Your task to perform on an android device: Show me productivity apps on the Play Store Image 0: 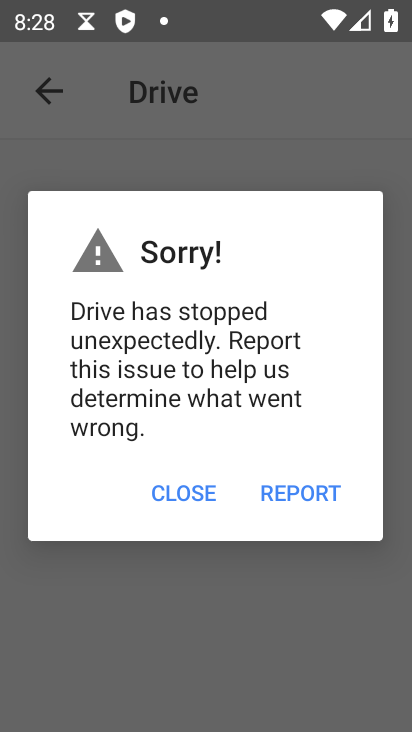
Step 0: press home button
Your task to perform on an android device: Show me productivity apps on the Play Store Image 1: 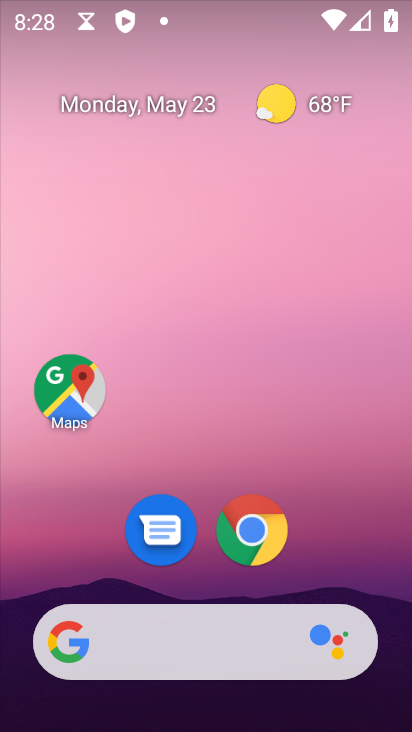
Step 1: drag from (89, 572) to (213, 144)
Your task to perform on an android device: Show me productivity apps on the Play Store Image 2: 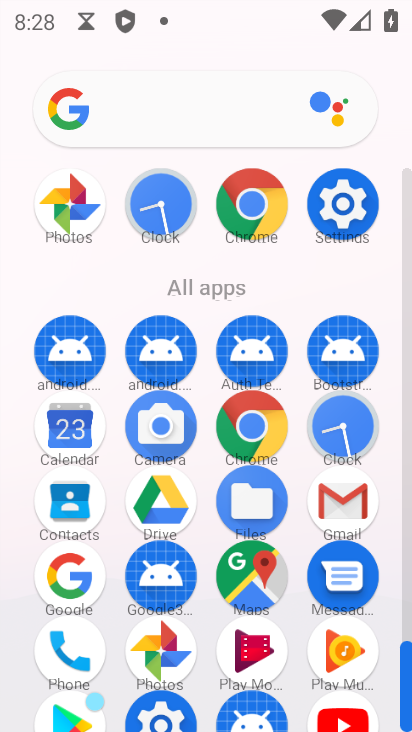
Step 2: drag from (86, 658) to (137, 359)
Your task to perform on an android device: Show me productivity apps on the Play Store Image 3: 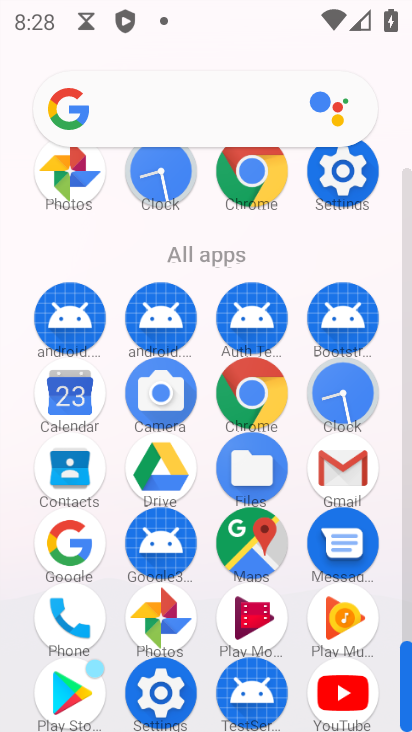
Step 3: click (75, 701)
Your task to perform on an android device: Show me productivity apps on the Play Store Image 4: 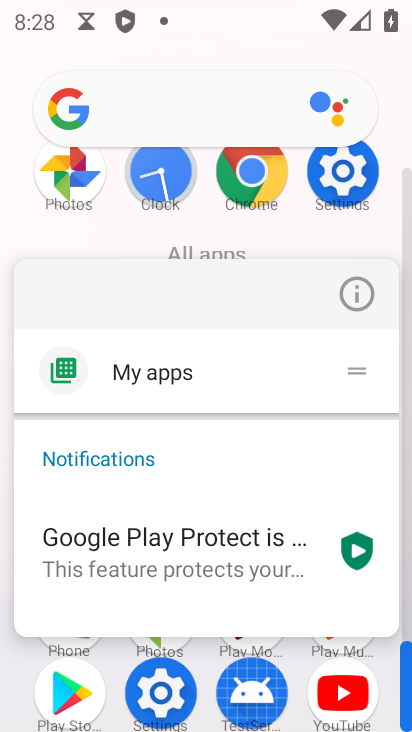
Step 4: click (73, 697)
Your task to perform on an android device: Show me productivity apps on the Play Store Image 5: 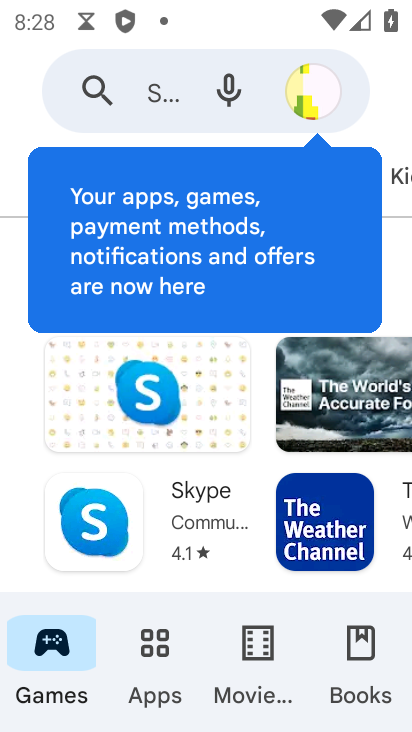
Step 5: click (185, 644)
Your task to perform on an android device: Show me productivity apps on the Play Store Image 6: 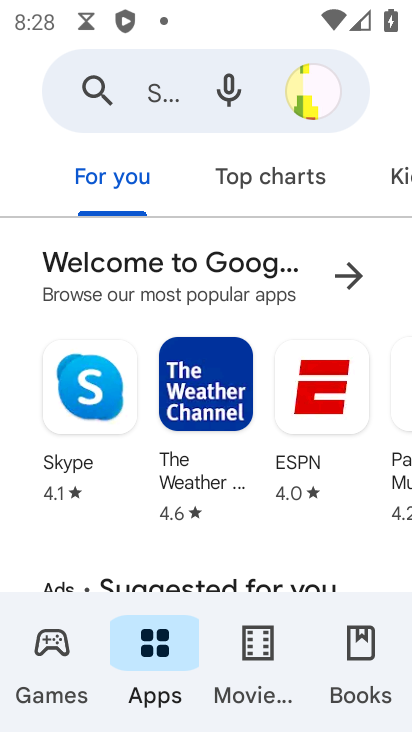
Step 6: drag from (365, 173) to (2, 170)
Your task to perform on an android device: Show me productivity apps on the Play Store Image 7: 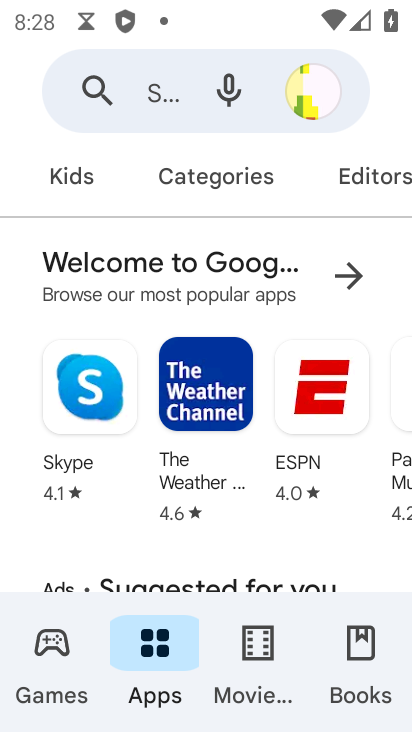
Step 7: click (246, 196)
Your task to perform on an android device: Show me productivity apps on the Play Store Image 8: 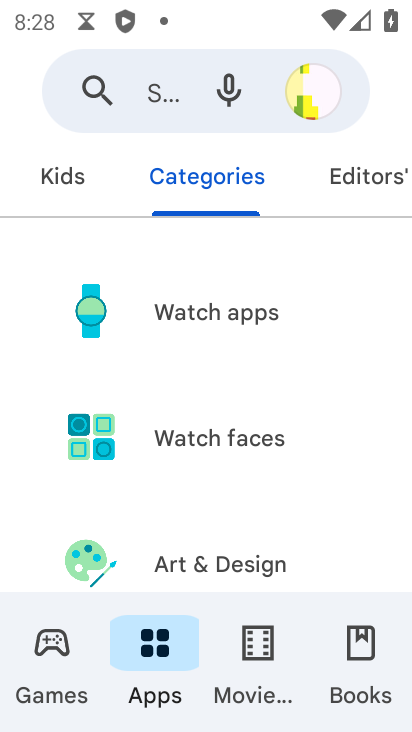
Step 8: drag from (158, 493) to (268, 4)
Your task to perform on an android device: Show me productivity apps on the Play Store Image 9: 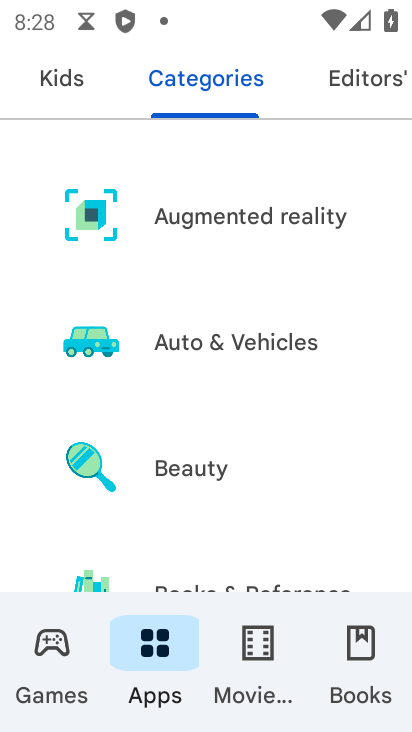
Step 9: drag from (198, 537) to (305, 0)
Your task to perform on an android device: Show me productivity apps on the Play Store Image 10: 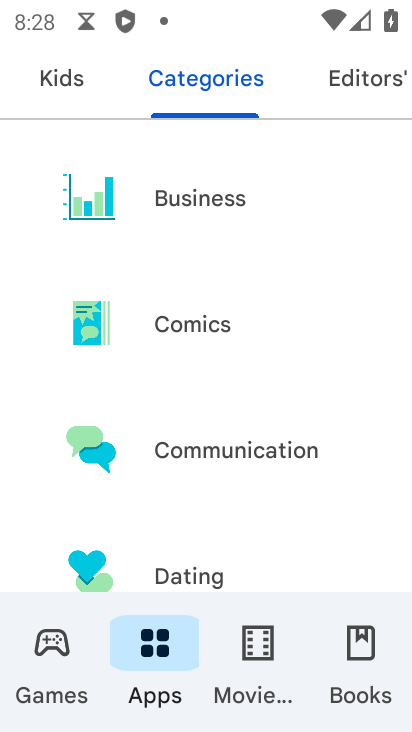
Step 10: drag from (187, 563) to (288, 115)
Your task to perform on an android device: Show me productivity apps on the Play Store Image 11: 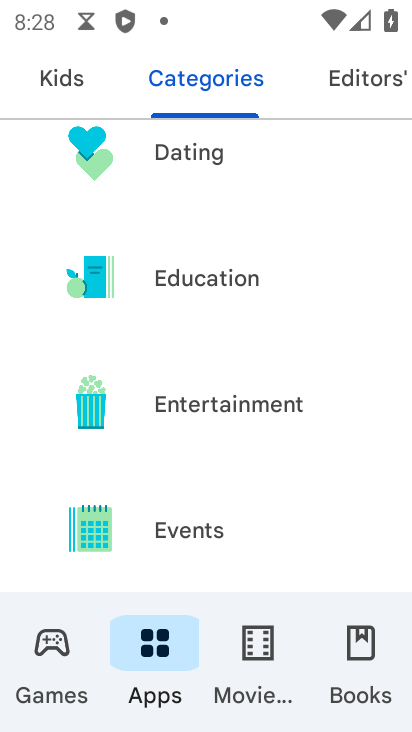
Step 11: drag from (167, 497) to (290, 17)
Your task to perform on an android device: Show me productivity apps on the Play Store Image 12: 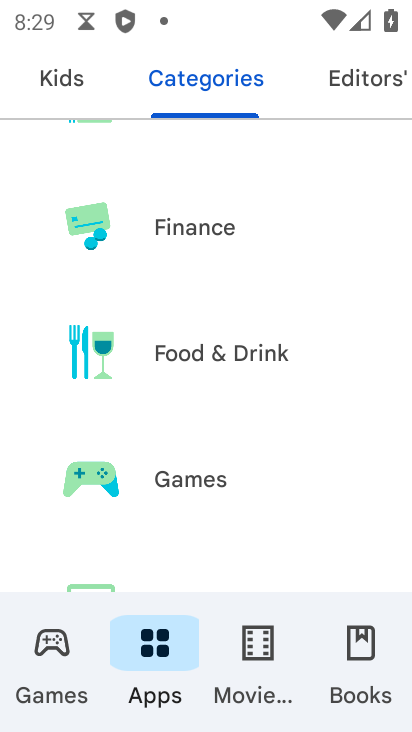
Step 12: drag from (161, 528) to (253, 0)
Your task to perform on an android device: Show me productivity apps on the Play Store Image 13: 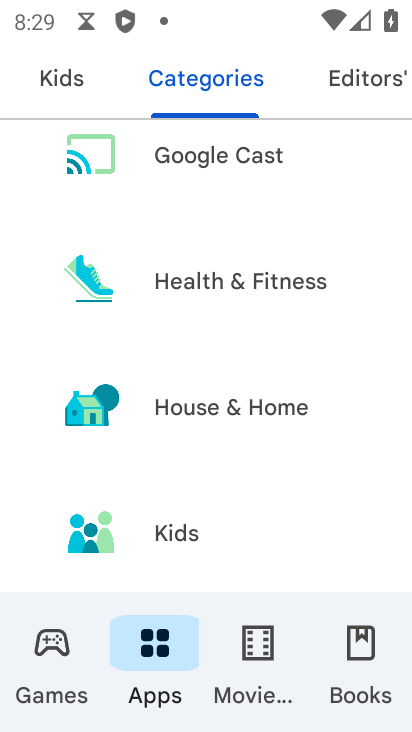
Step 13: drag from (181, 508) to (249, 36)
Your task to perform on an android device: Show me productivity apps on the Play Store Image 14: 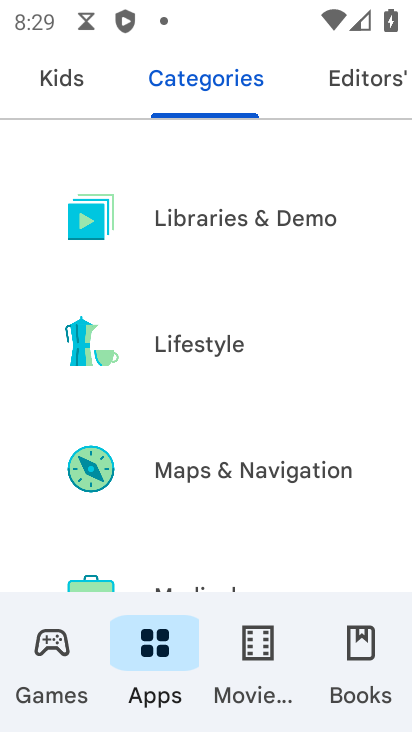
Step 14: drag from (120, 530) to (202, 63)
Your task to perform on an android device: Show me productivity apps on the Play Store Image 15: 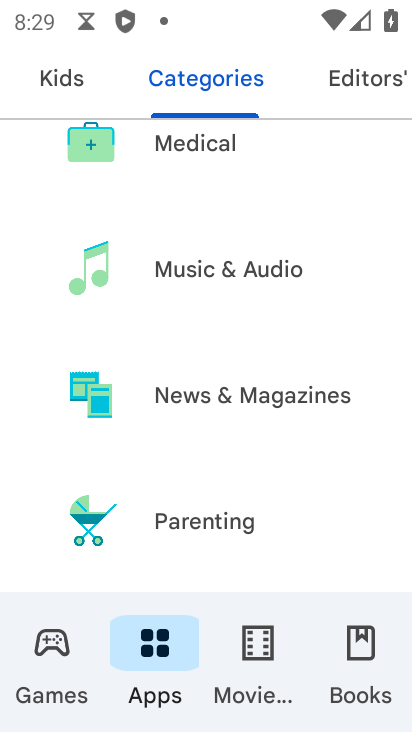
Step 15: drag from (197, 443) to (268, 67)
Your task to perform on an android device: Show me productivity apps on the Play Store Image 16: 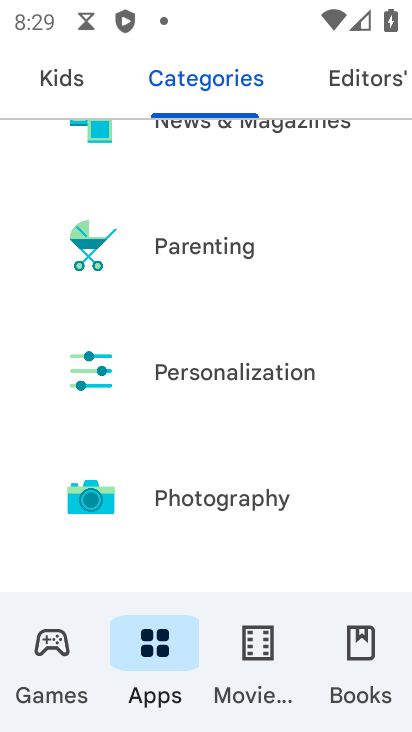
Step 16: drag from (187, 505) to (255, 118)
Your task to perform on an android device: Show me productivity apps on the Play Store Image 17: 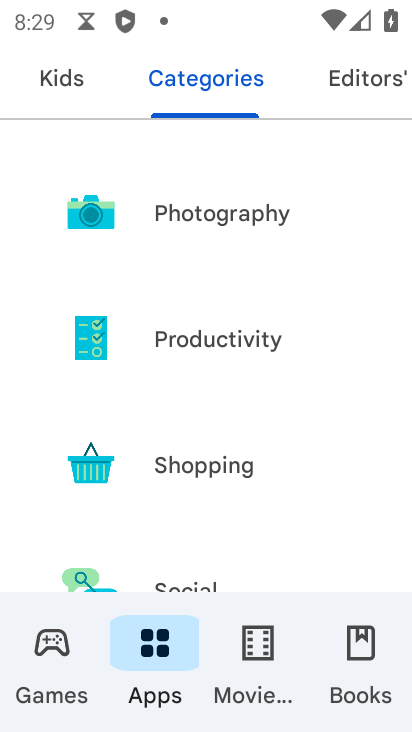
Step 17: click (243, 362)
Your task to perform on an android device: Show me productivity apps on the Play Store Image 18: 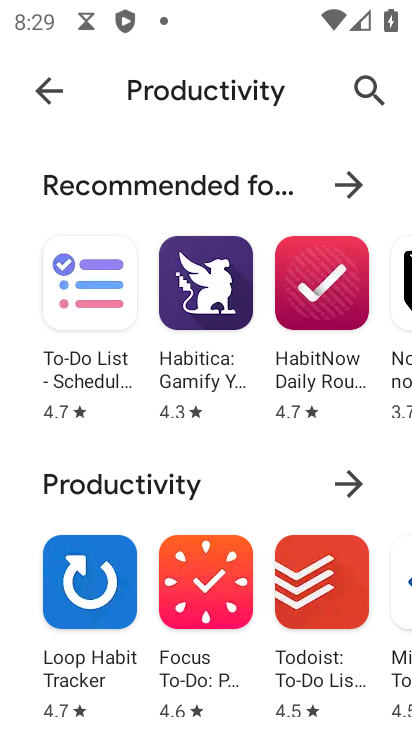
Step 18: task complete